Your task to perform on an android device: Open Yahoo.com Image 0: 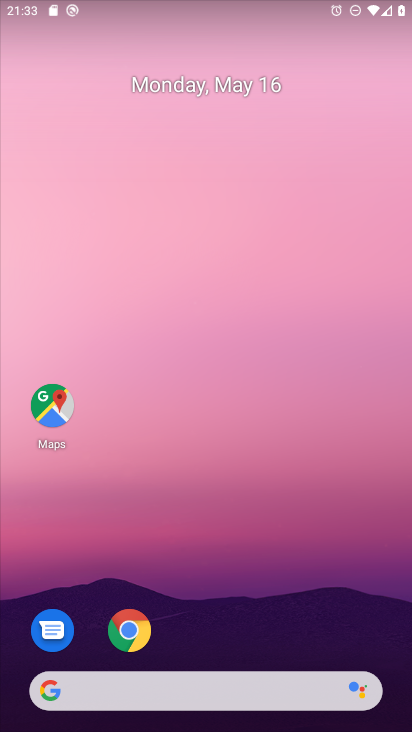
Step 0: click (126, 629)
Your task to perform on an android device: Open Yahoo.com Image 1: 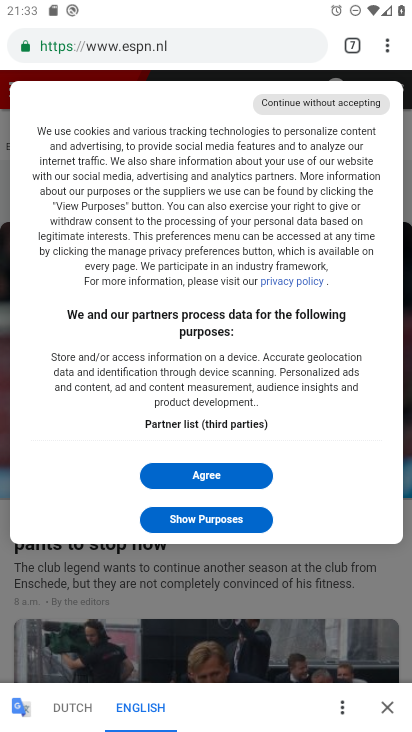
Step 1: click (358, 43)
Your task to perform on an android device: Open Yahoo.com Image 2: 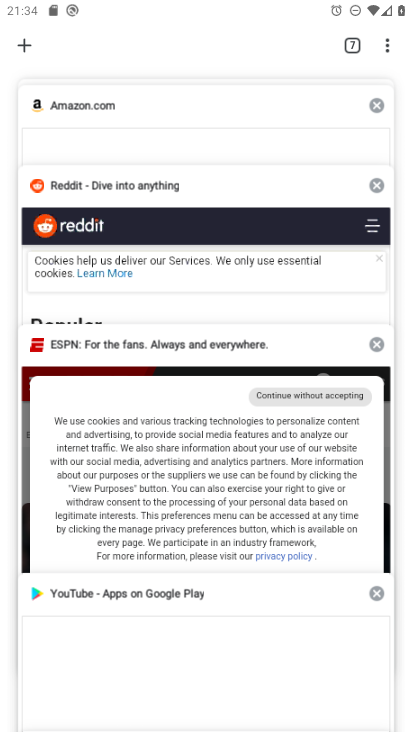
Step 2: drag from (142, 127) to (130, 634)
Your task to perform on an android device: Open Yahoo.com Image 3: 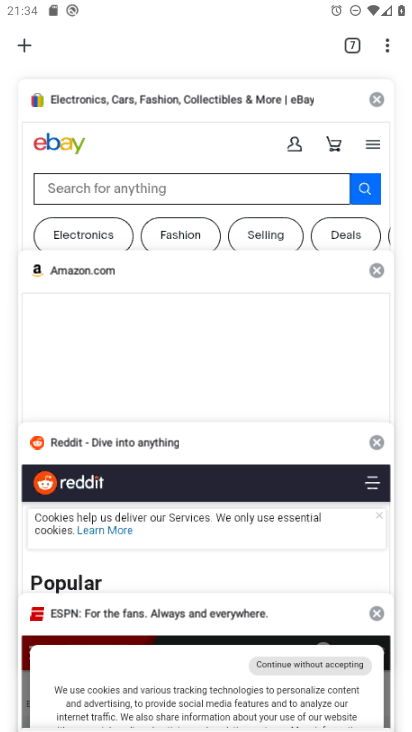
Step 3: drag from (160, 117) to (168, 571)
Your task to perform on an android device: Open Yahoo.com Image 4: 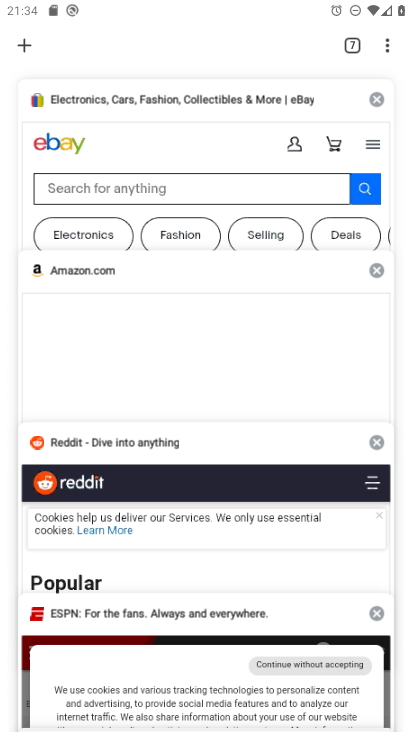
Step 4: click (15, 35)
Your task to perform on an android device: Open Yahoo.com Image 5: 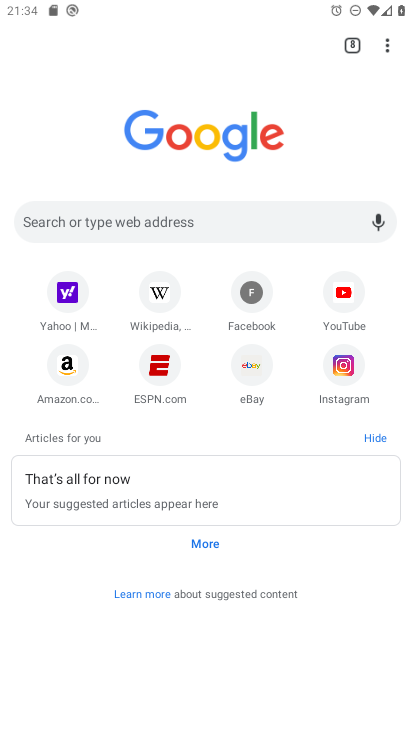
Step 5: click (52, 296)
Your task to perform on an android device: Open Yahoo.com Image 6: 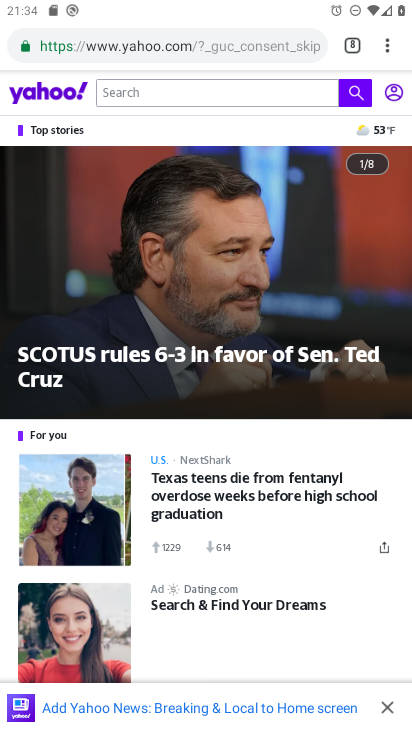
Step 6: task complete